Your task to perform on an android device: turn off location history Image 0: 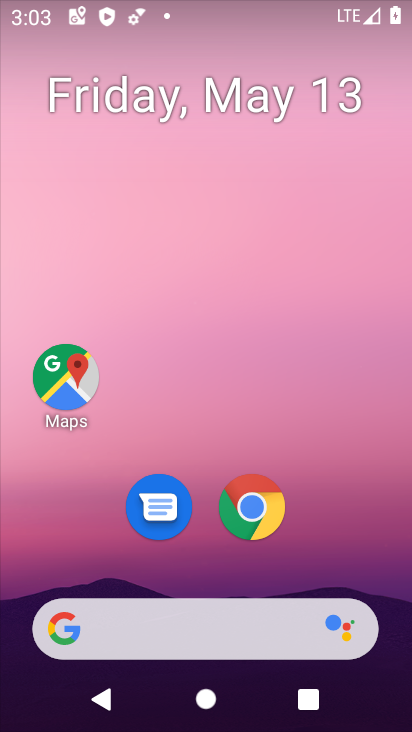
Step 0: drag from (336, 535) to (278, 5)
Your task to perform on an android device: turn off location history Image 1: 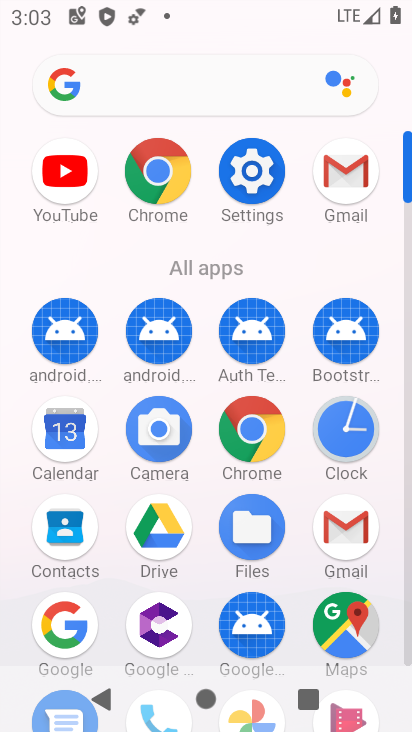
Step 1: click (265, 195)
Your task to perform on an android device: turn off location history Image 2: 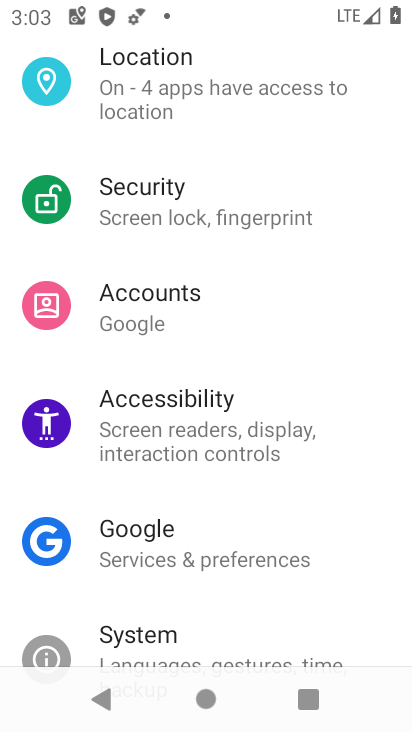
Step 2: drag from (242, 410) to (217, 168)
Your task to perform on an android device: turn off location history Image 3: 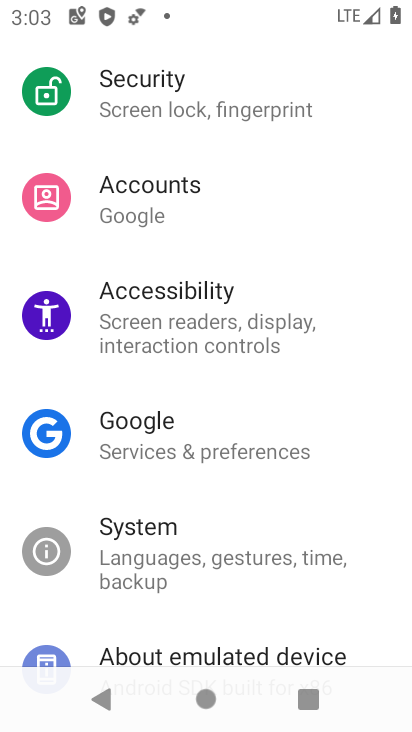
Step 3: drag from (213, 569) to (193, 9)
Your task to perform on an android device: turn off location history Image 4: 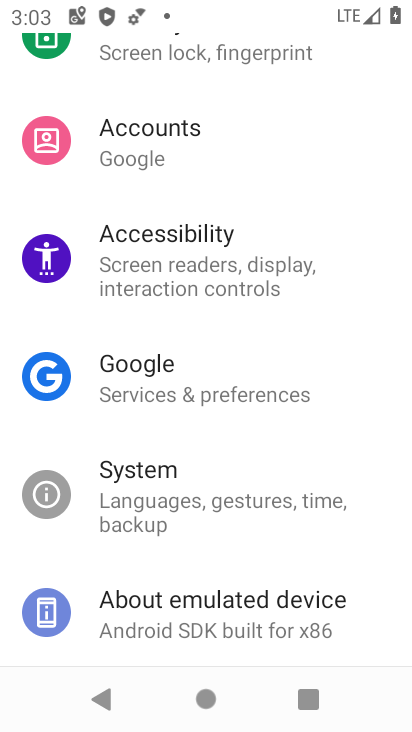
Step 4: drag from (235, 181) to (242, 500)
Your task to perform on an android device: turn off location history Image 5: 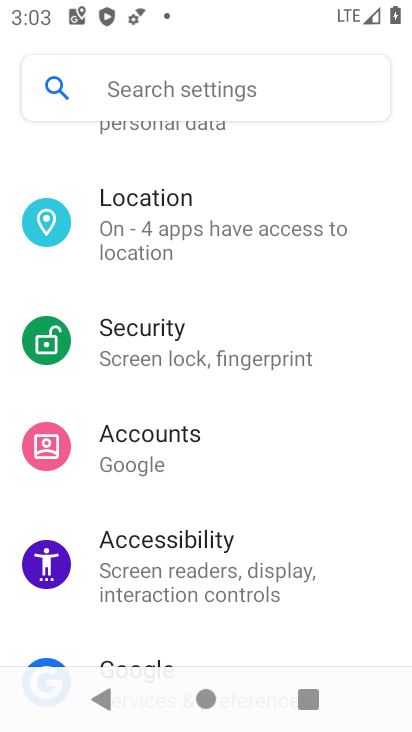
Step 5: click (232, 235)
Your task to perform on an android device: turn off location history Image 6: 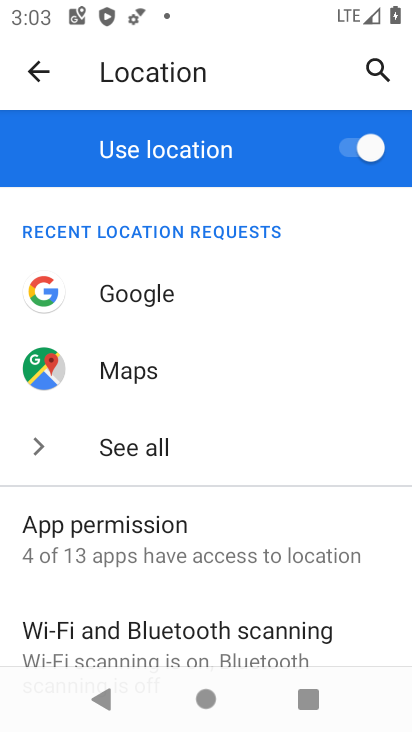
Step 6: drag from (235, 479) to (211, 244)
Your task to perform on an android device: turn off location history Image 7: 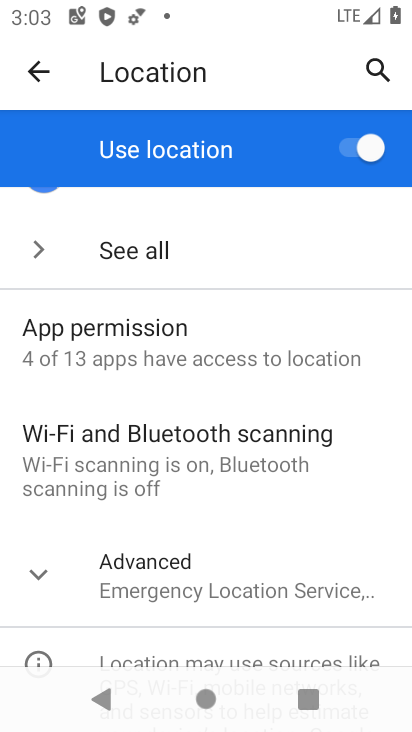
Step 7: click (162, 567)
Your task to perform on an android device: turn off location history Image 8: 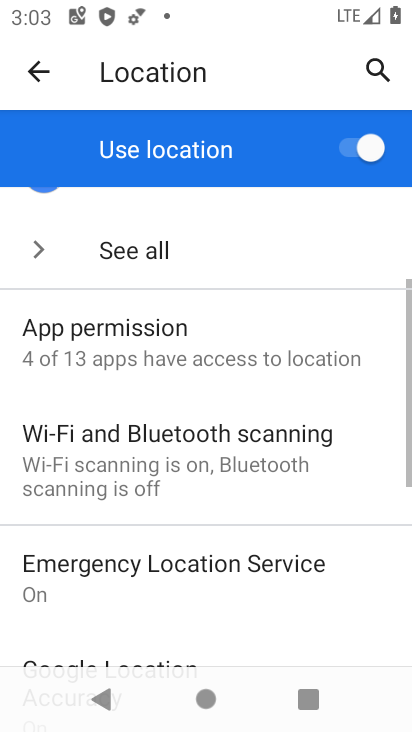
Step 8: drag from (184, 513) to (156, 136)
Your task to perform on an android device: turn off location history Image 9: 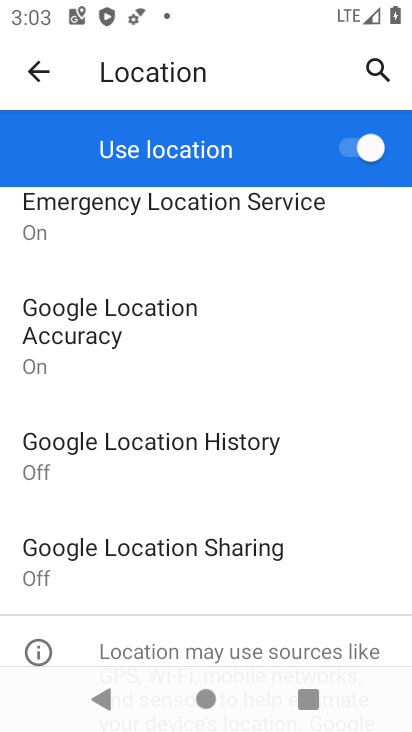
Step 9: click (165, 445)
Your task to perform on an android device: turn off location history Image 10: 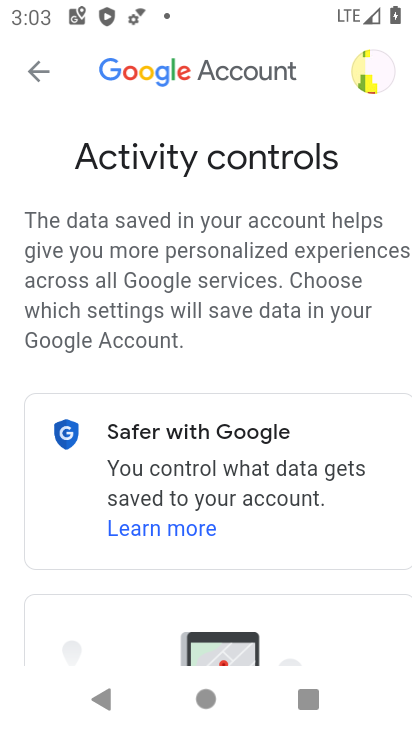
Step 10: task complete